Your task to perform on an android device: Open wifi settings Image 0: 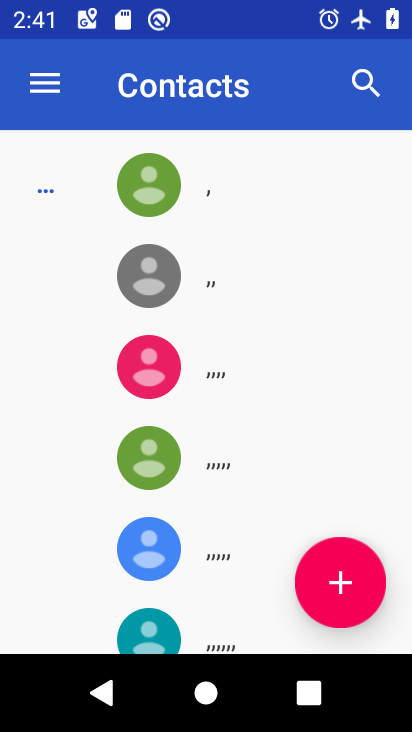
Step 0: press home button
Your task to perform on an android device: Open wifi settings Image 1: 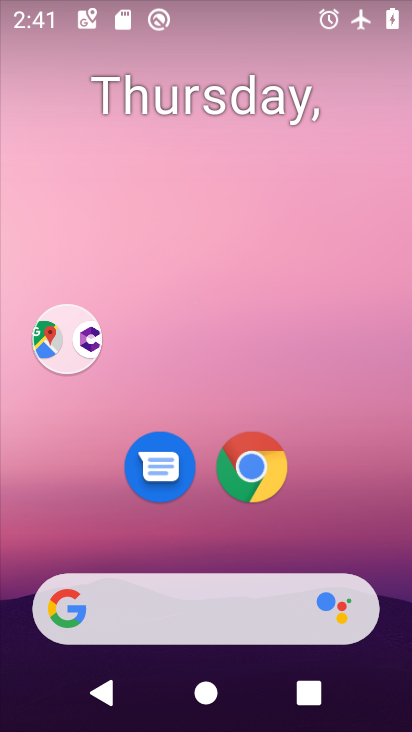
Step 1: drag from (216, 537) to (244, 20)
Your task to perform on an android device: Open wifi settings Image 2: 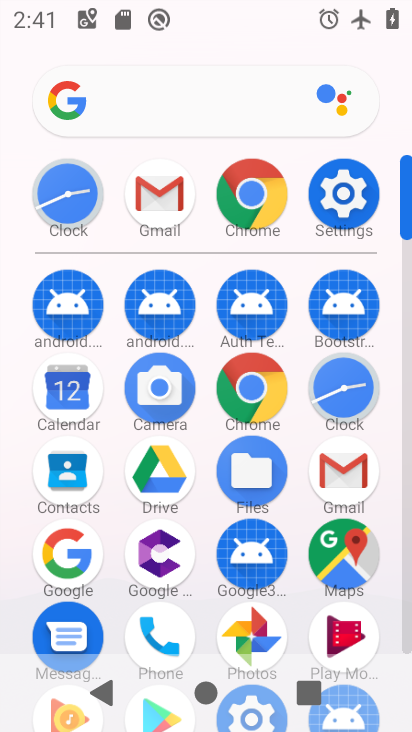
Step 2: click (334, 189)
Your task to perform on an android device: Open wifi settings Image 3: 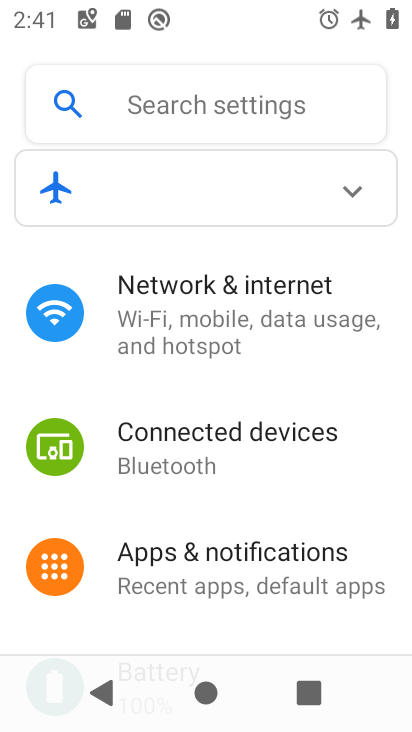
Step 3: click (191, 308)
Your task to perform on an android device: Open wifi settings Image 4: 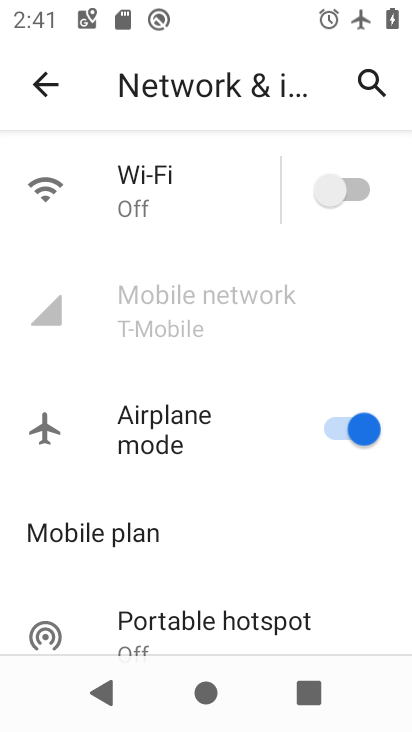
Step 4: click (177, 188)
Your task to perform on an android device: Open wifi settings Image 5: 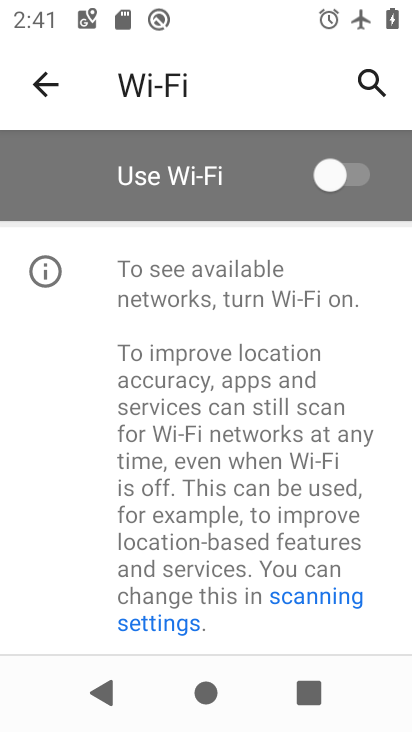
Step 5: task complete